Your task to perform on an android device: Open settings Image 0: 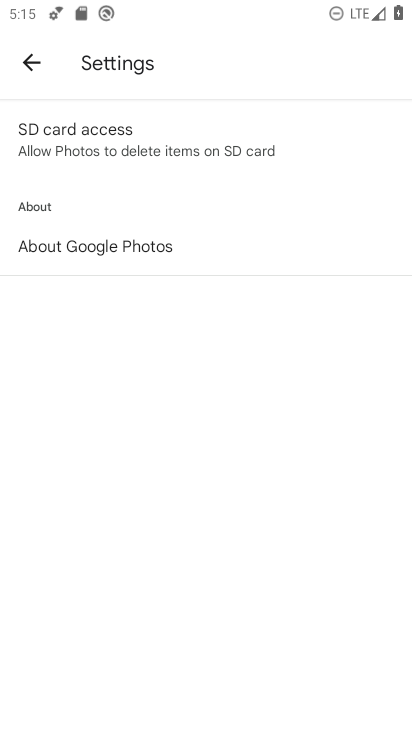
Step 0: press home button
Your task to perform on an android device: Open settings Image 1: 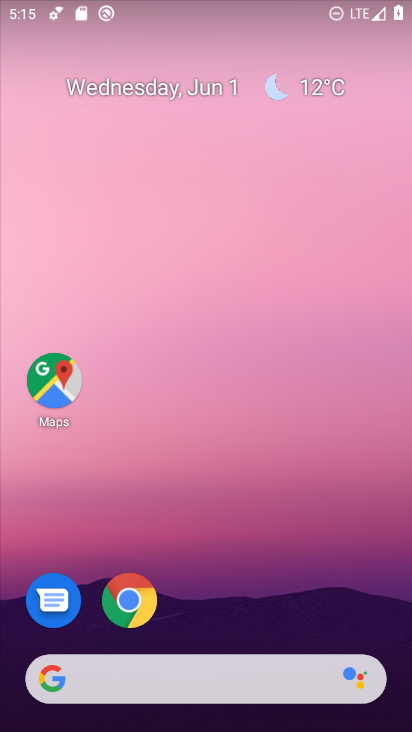
Step 1: drag from (369, 635) to (317, 89)
Your task to perform on an android device: Open settings Image 2: 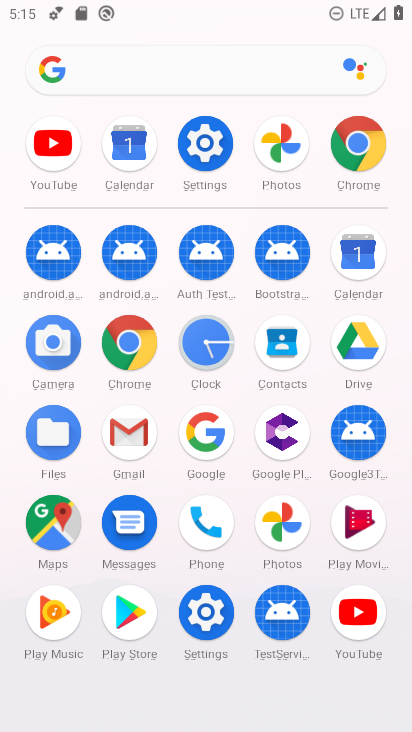
Step 2: click (205, 611)
Your task to perform on an android device: Open settings Image 3: 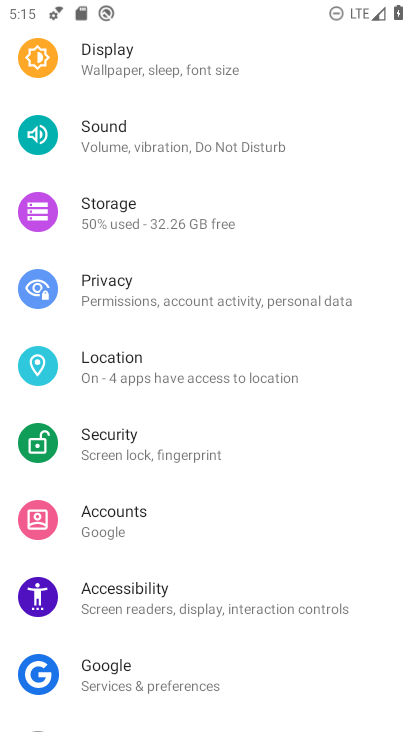
Step 3: task complete